Your task to perform on an android device: Open CNN.com Image 0: 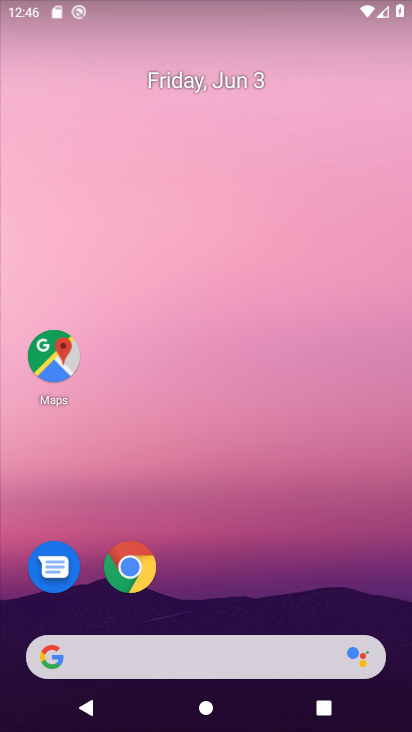
Step 0: click (134, 556)
Your task to perform on an android device: Open CNN.com Image 1: 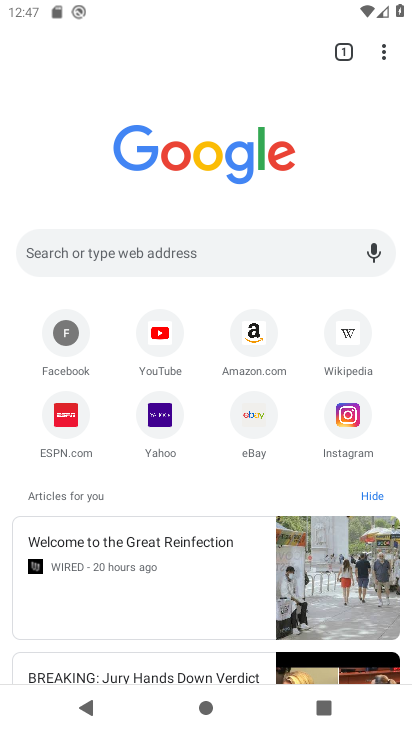
Step 1: click (224, 239)
Your task to perform on an android device: Open CNN.com Image 2: 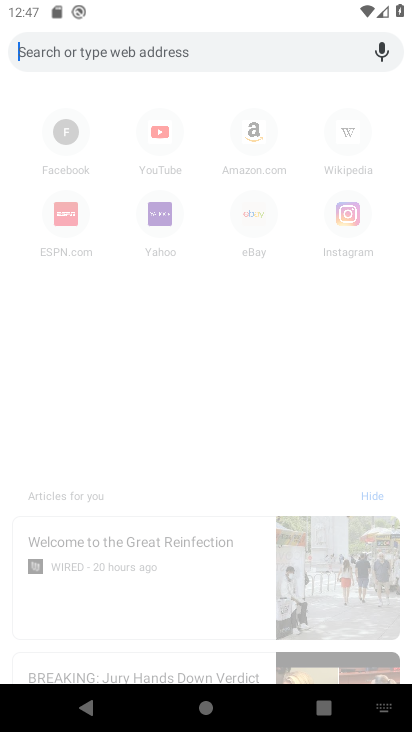
Step 2: type "CNN.com"
Your task to perform on an android device: Open CNN.com Image 3: 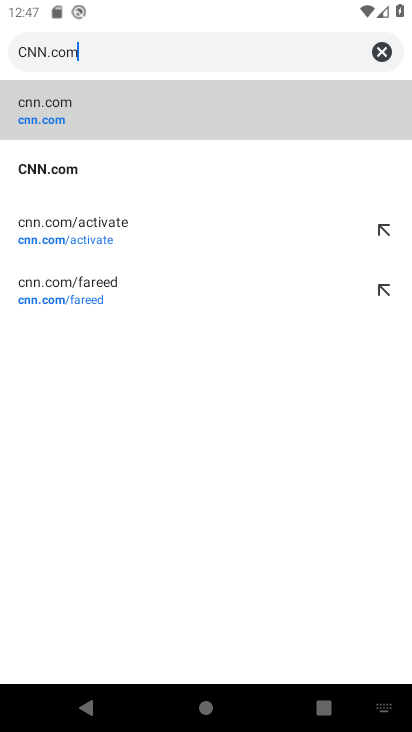
Step 3: click (238, 101)
Your task to perform on an android device: Open CNN.com Image 4: 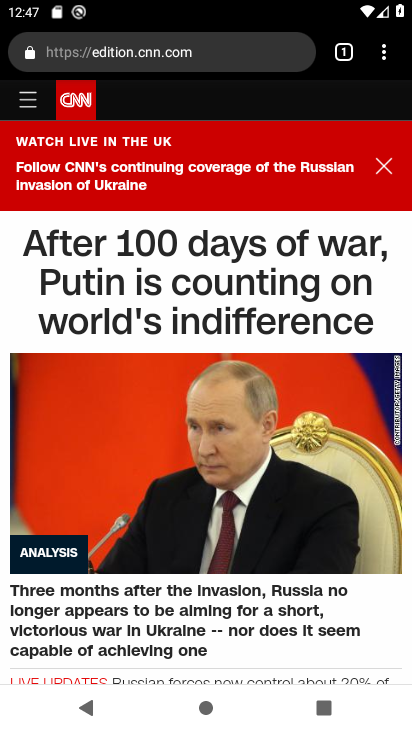
Step 4: task complete